Your task to perform on an android device: See recent photos Image 0: 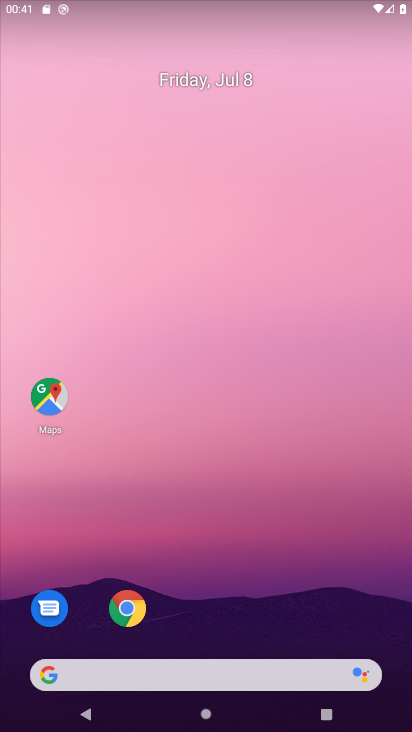
Step 0: click (239, 240)
Your task to perform on an android device: See recent photos Image 1: 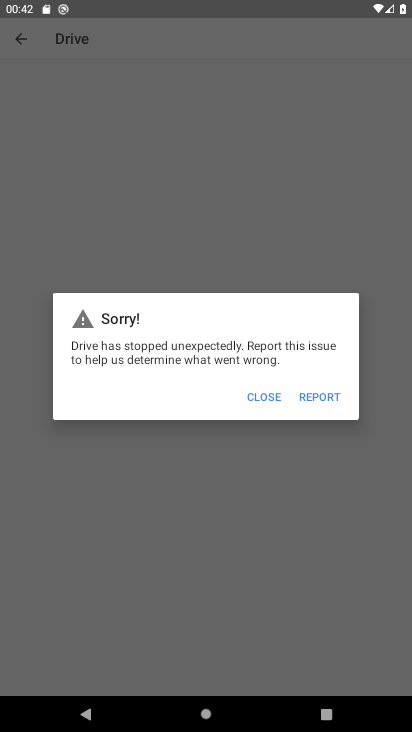
Step 1: press home button
Your task to perform on an android device: See recent photos Image 2: 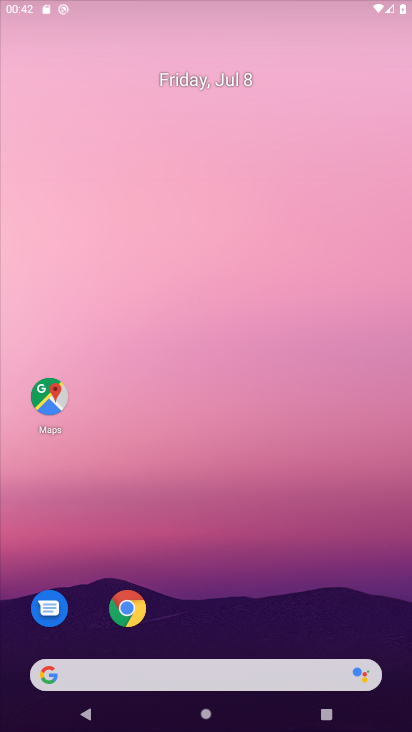
Step 2: drag from (200, 654) to (227, 434)
Your task to perform on an android device: See recent photos Image 3: 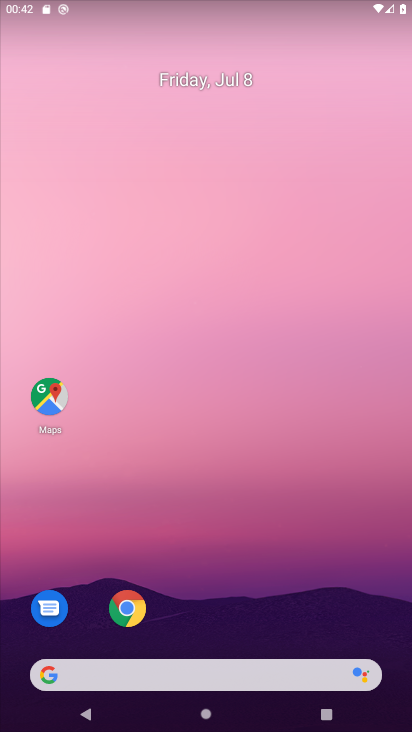
Step 3: drag from (234, 668) to (285, 334)
Your task to perform on an android device: See recent photos Image 4: 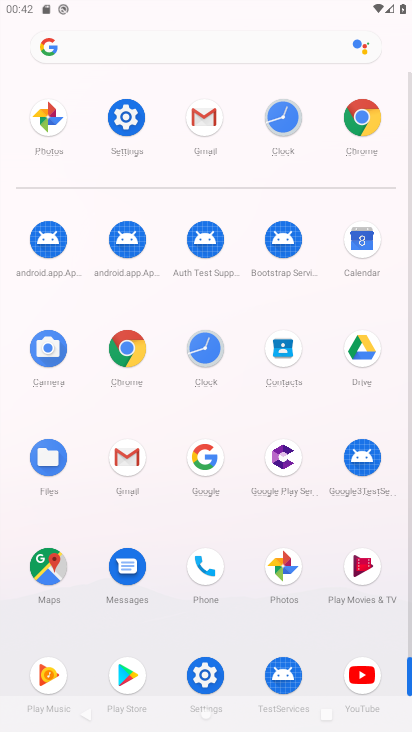
Step 4: click (274, 563)
Your task to perform on an android device: See recent photos Image 5: 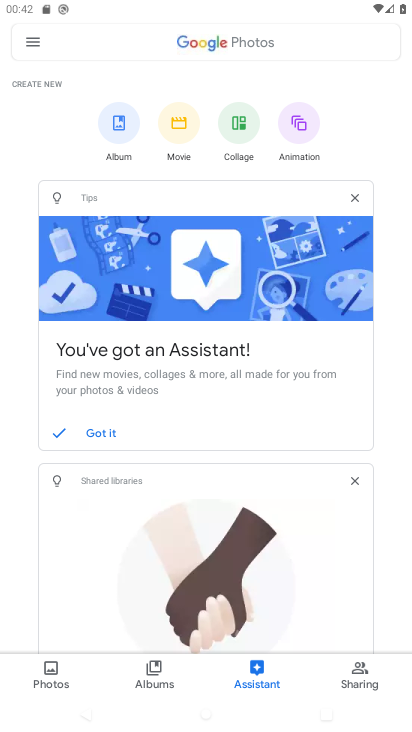
Step 5: click (156, 673)
Your task to perform on an android device: See recent photos Image 6: 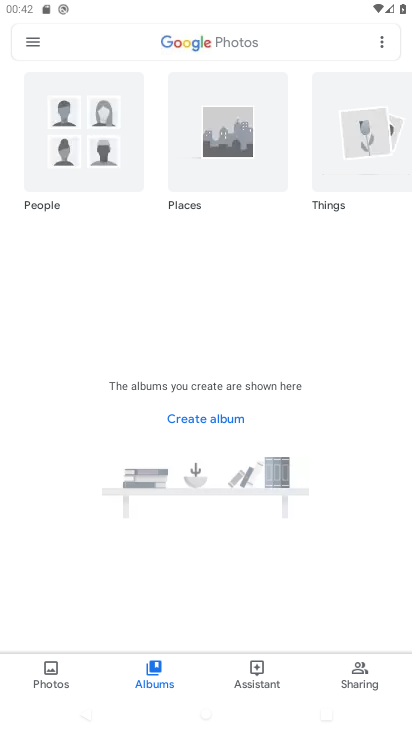
Step 6: task complete